Your task to perform on an android device: turn off smart reply in the gmail app Image 0: 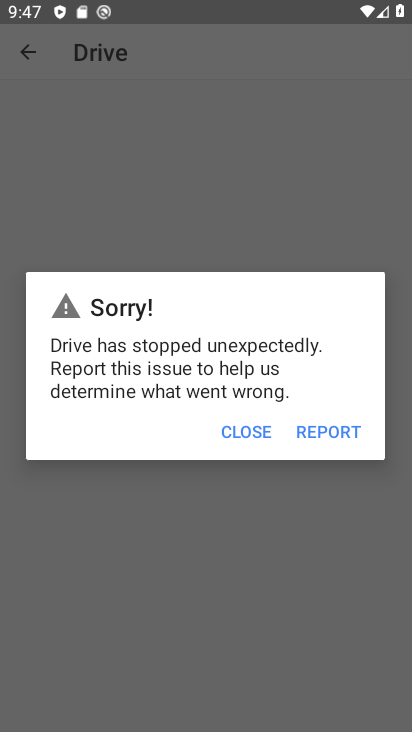
Step 0: press home button
Your task to perform on an android device: turn off smart reply in the gmail app Image 1: 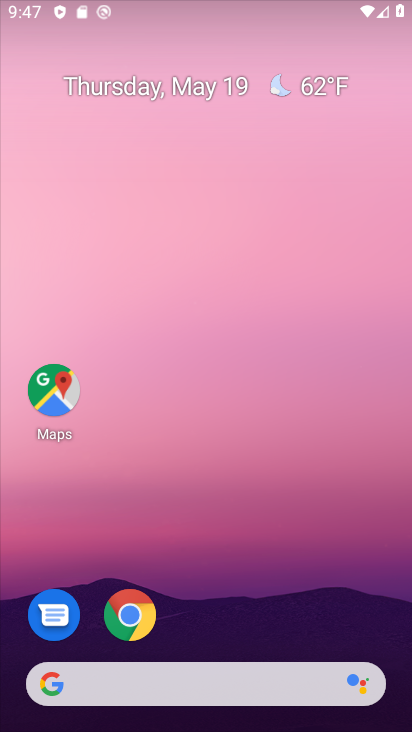
Step 1: drag from (286, 509) to (168, 30)
Your task to perform on an android device: turn off smart reply in the gmail app Image 2: 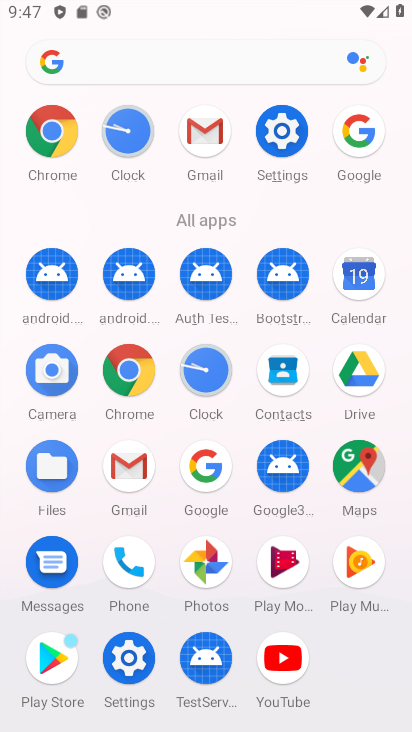
Step 2: click (198, 123)
Your task to perform on an android device: turn off smart reply in the gmail app Image 3: 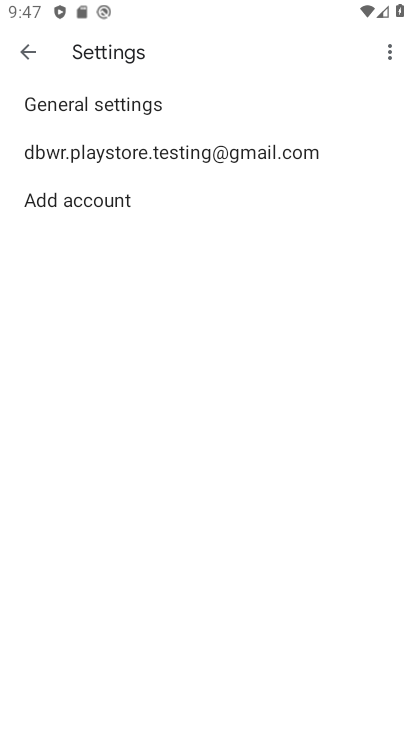
Step 3: click (95, 148)
Your task to perform on an android device: turn off smart reply in the gmail app Image 4: 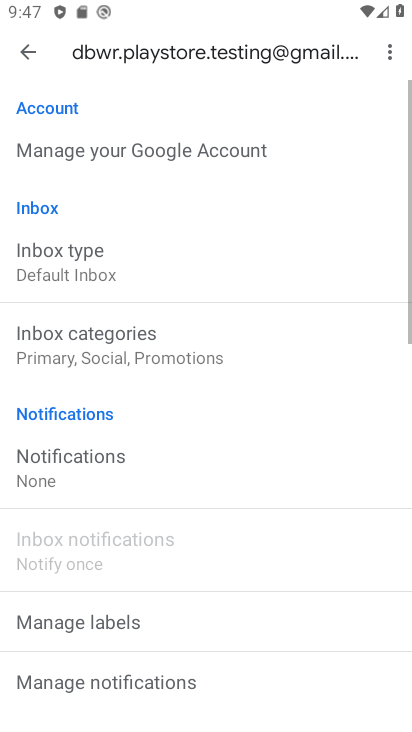
Step 4: drag from (275, 571) to (209, 56)
Your task to perform on an android device: turn off smart reply in the gmail app Image 5: 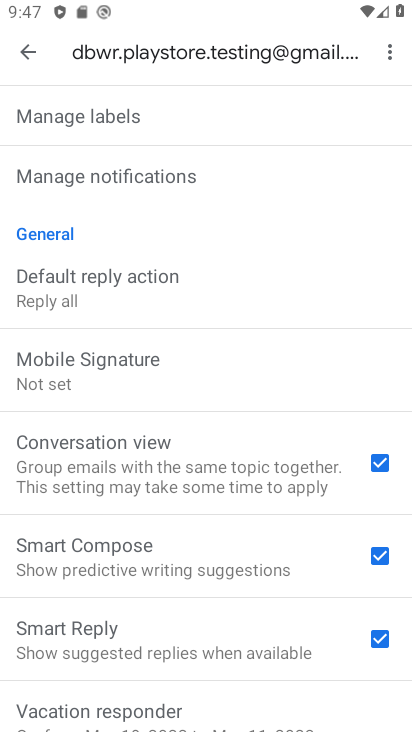
Step 5: click (376, 637)
Your task to perform on an android device: turn off smart reply in the gmail app Image 6: 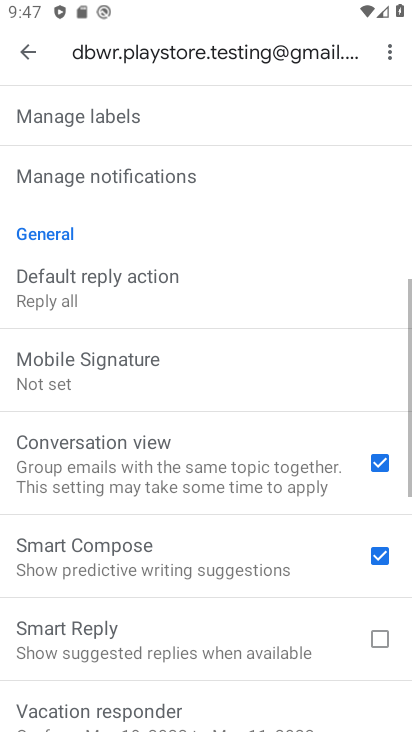
Step 6: task complete